Your task to perform on an android device: stop showing notifications on the lock screen Image 0: 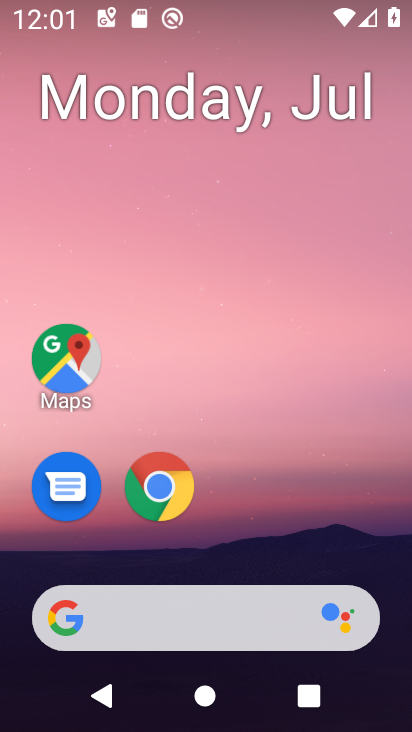
Step 0: press home button
Your task to perform on an android device: stop showing notifications on the lock screen Image 1: 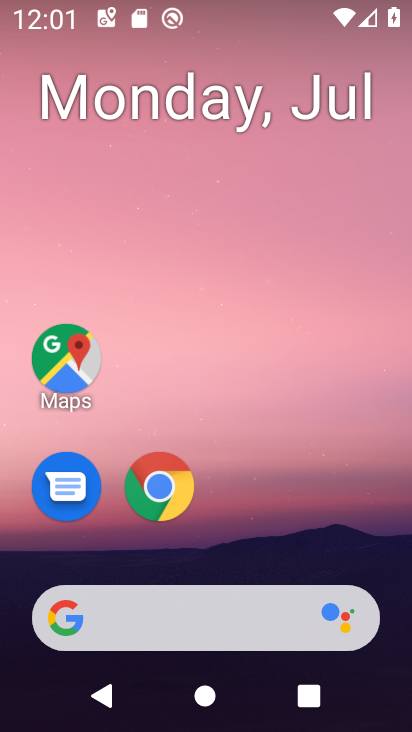
Step 1: drag from (364, 552) to (379, 150)
Your task to perform on an android device: stop showing notifications on the lock screen Image 2: 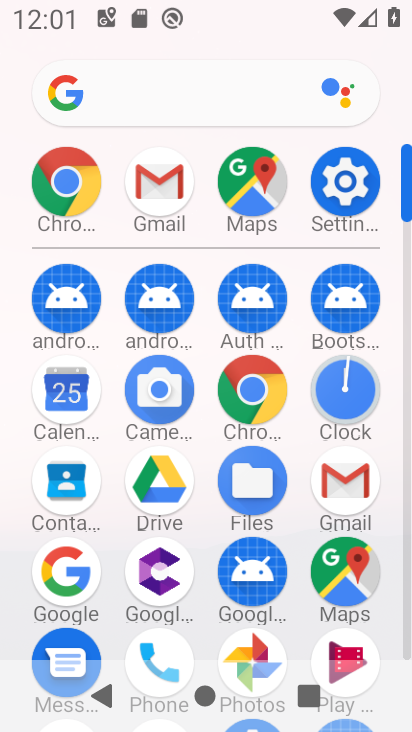
Step 2: click (356, 188)
Your task to perform on an android device: stop showing notifications on the lock screen Image 3: 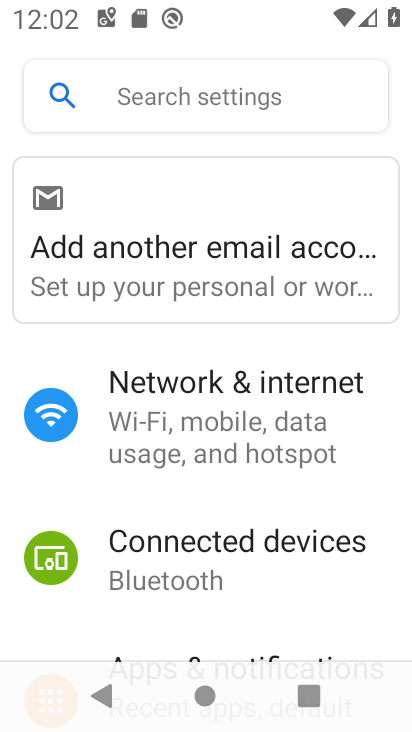
Step 3: drag from (353, 595) to (356, 522)
Your task to perform on an android device: stop showing notifications on the lock screen Image 4: 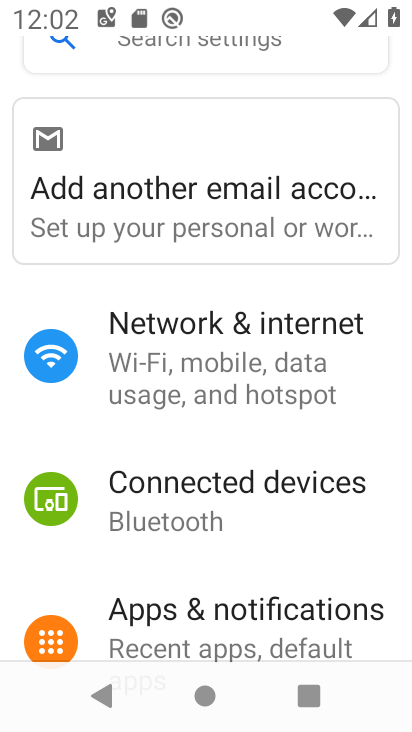
Step 4: drag from (347, 593) to (336, 479)
Your task to perform on an android device: stop showing notifications on the lock screen Image 5: 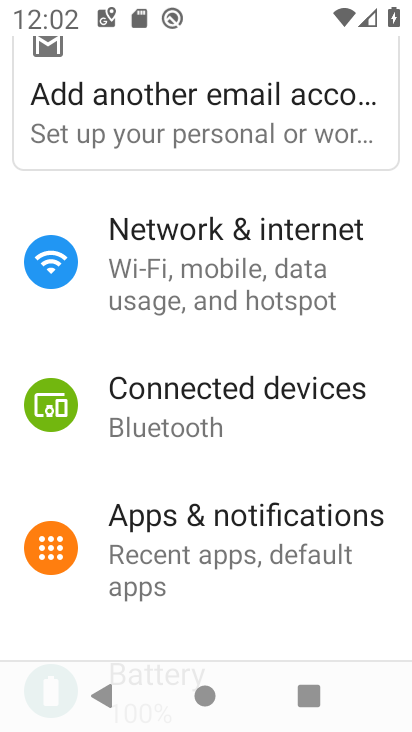
Step 5: drag from (315, 426) to (317, 390)
Your task to perform on an android device: stop showing notifications on the lock screen Image 6: 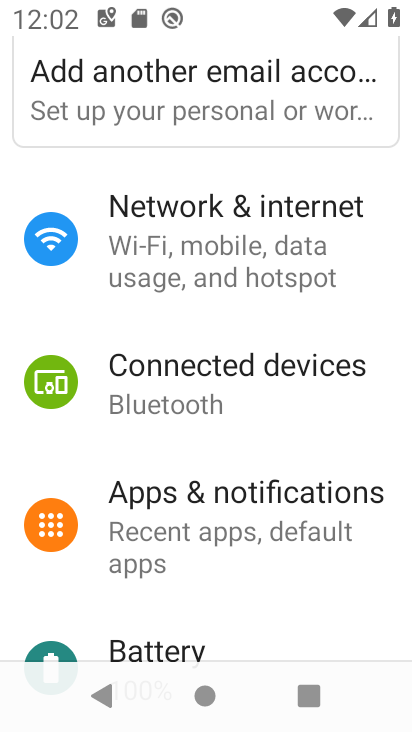
Step 6: click (271, 530)
Your task to perform on an android device: stop showing notifications on the lock screen Image 7: 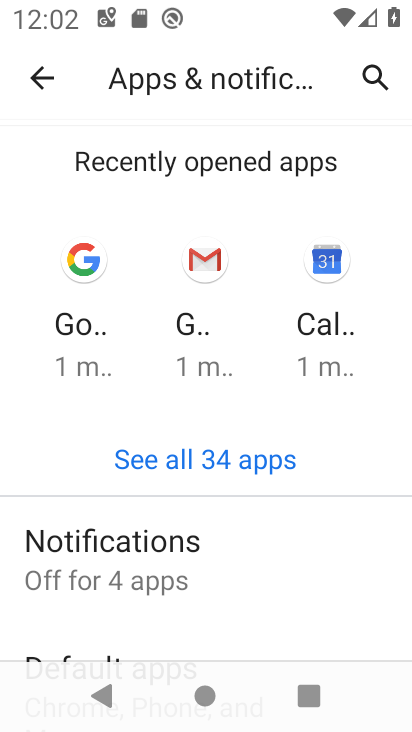
Step 7: drag from (313, 584) to (313, 468)
Your task to perform on an android device: stop showing notifications on the lock screen Image 8: 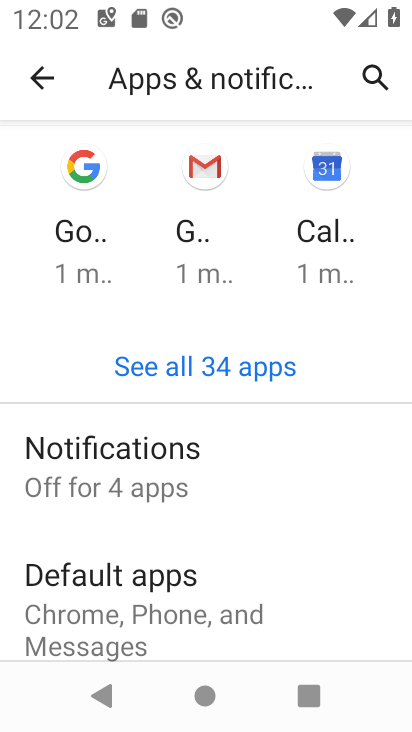
Step 8: drag from (301, 583) to (290, 460)
Your task to perform on an android device: stop showing notifications on the lock screen Image 9: 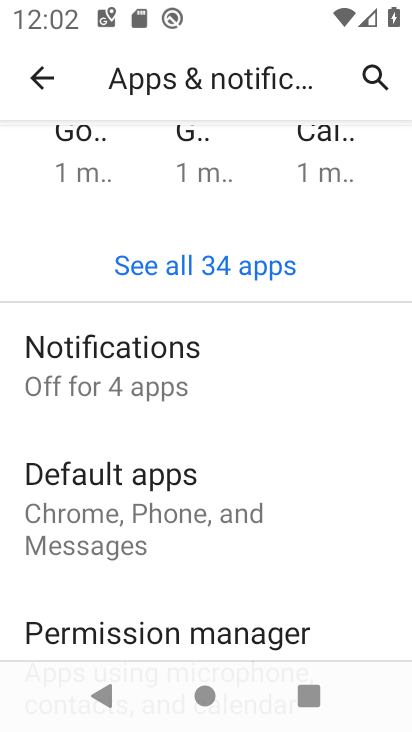
Step 9: drag from (257, 560) to (239, 444)
Your task to perform on an android device: stop showing notifications on the lock screen Image 10: 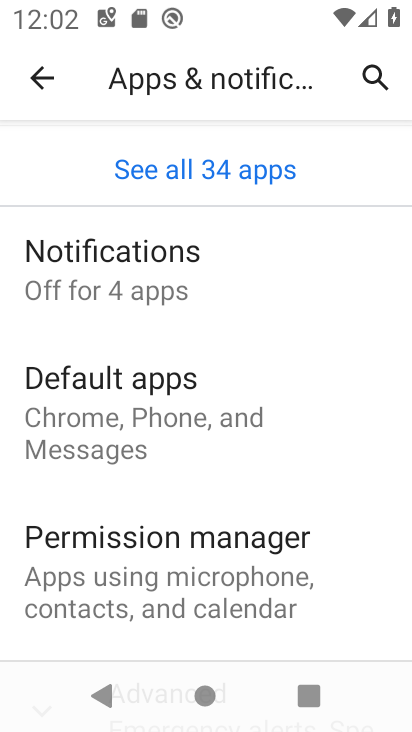
Step 10: click (176, 276)
Your task to perform on an android device: stop showing notifications on the lock screen Image 11: 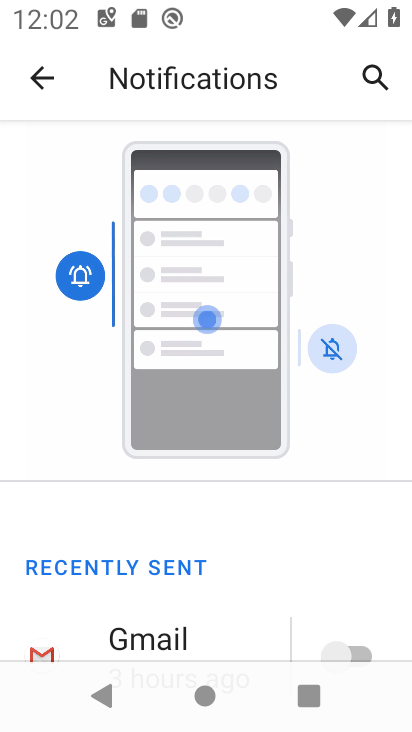
Step 11: drag from (295, 531) to (296, 421)
Your task to perform on an android device: stop showing notifications on the lock screen Image 12: 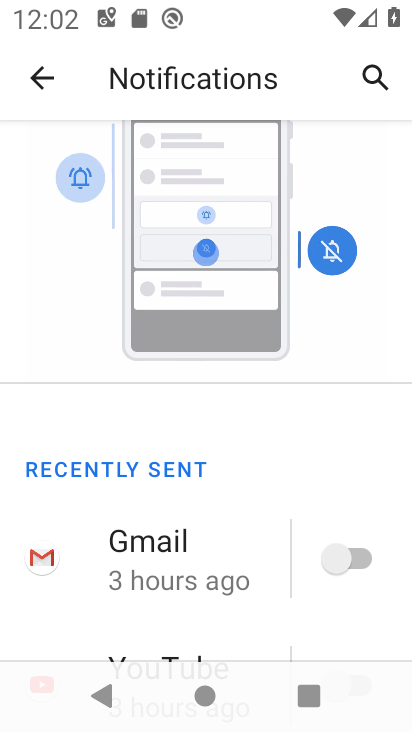
Step 12: drag from (254, 558) to (253, 452)
Your task to perform on an android device: stop showing notifications on the lock screen Image 13: 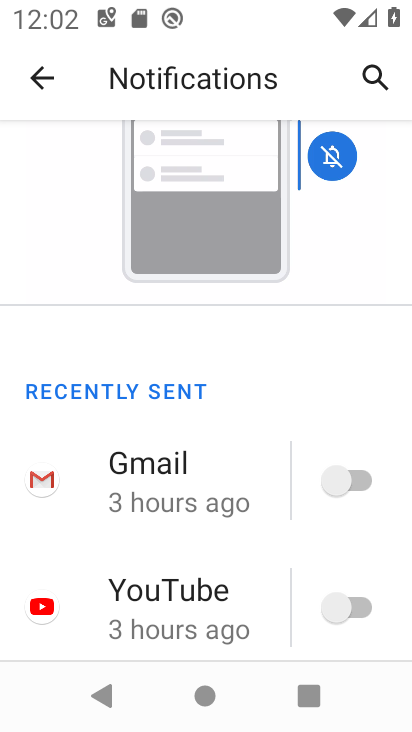
Step 13: drag from (255, 628) to (257, 475)
Your task to perform on an android device: stop showing notifications on the lock screen Image 14: 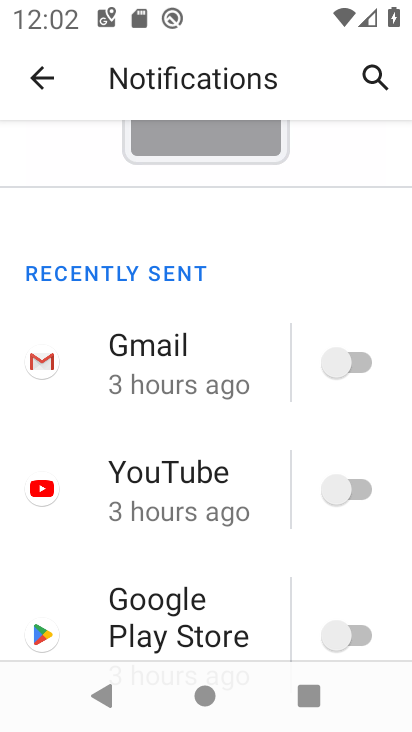
Step 14: drag from (243, 608) to (247, 446)
Your task to perform on an android device: stop showing notifications on the lock screen Image 15: 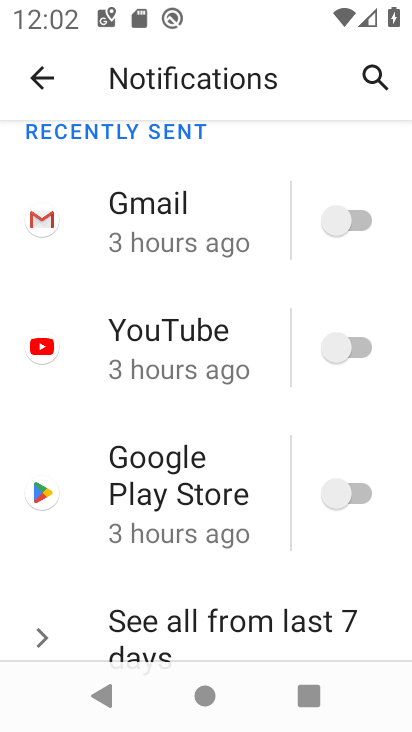
Step 15: drag from (290, 558) to (271, 389)
Your task to perform on an android device: stop showing notifications on the lock screen Image 16: 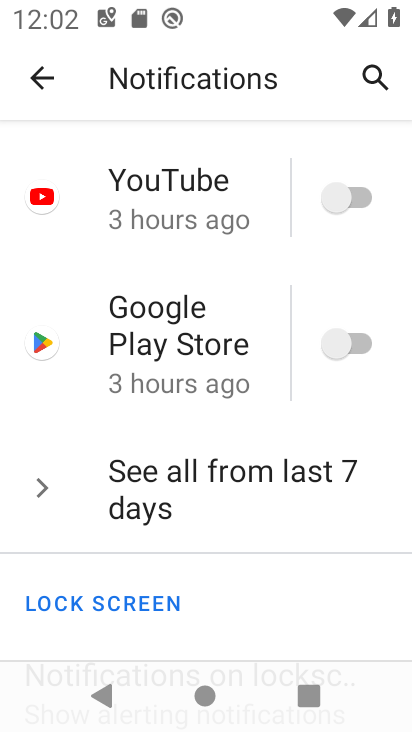
Step 16: drag from (234, 502) to (205, 333)
Your task to perform on an android device: stop showing notifications on the lock screen Image 17: 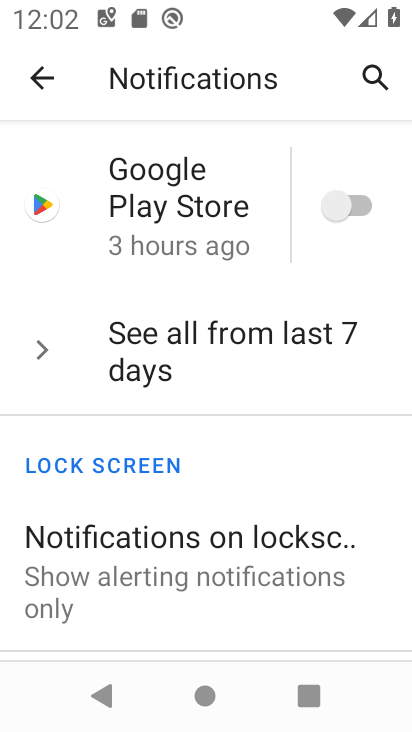
Step 17: drag from (207, 561) to (188, 408)
Your task to perform on an android device: stop showing notifications on the lock screen Image 18: 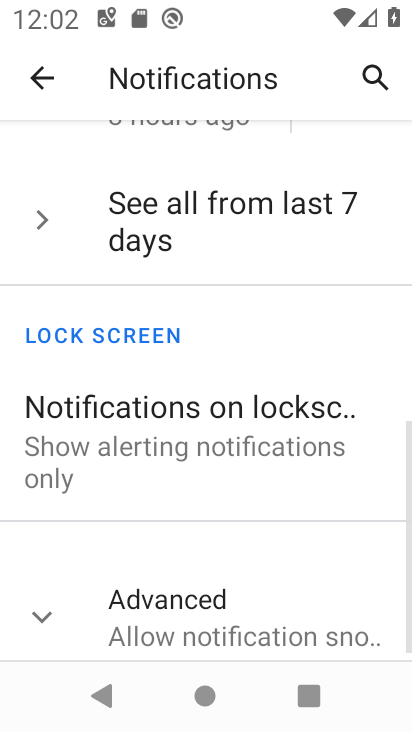
Step 18: click (212, 446)
Your task to perform on an android device: stop showing notifications on the lock screen Image 19: 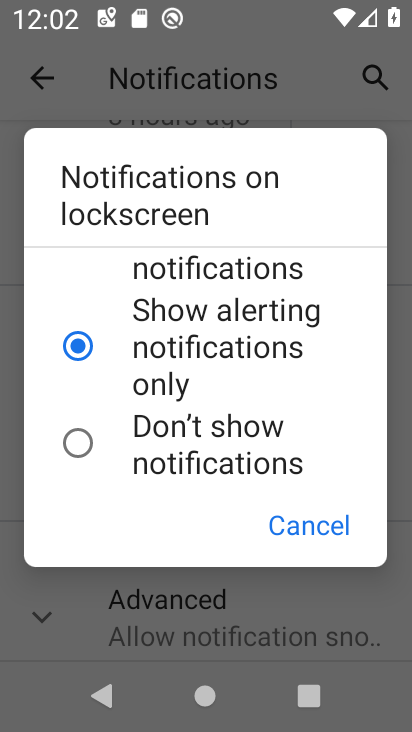
Step 19: click (201, 469)
Your task to perform on an android device: stop showing notifications on the lock screen Image 20: 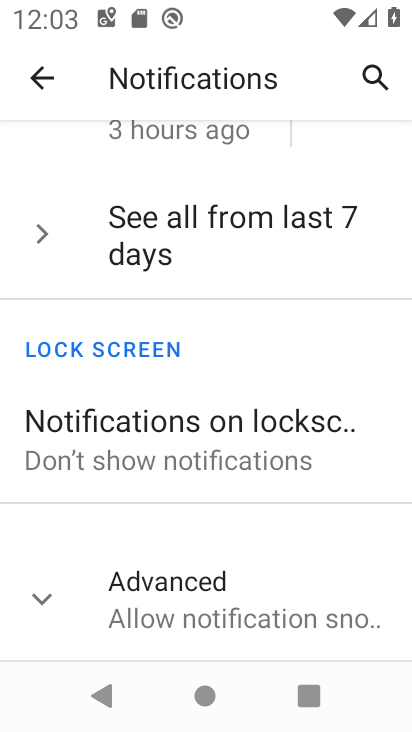
Step 20: task complete